Your task to perform on an android device: Open Wikipedia Image 0: 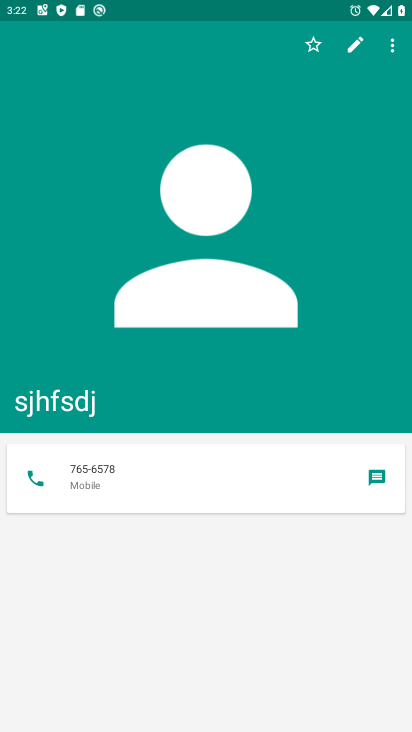
Step 0: press home button
Your task to perform on an android device: Open Wikipedia Image 1: 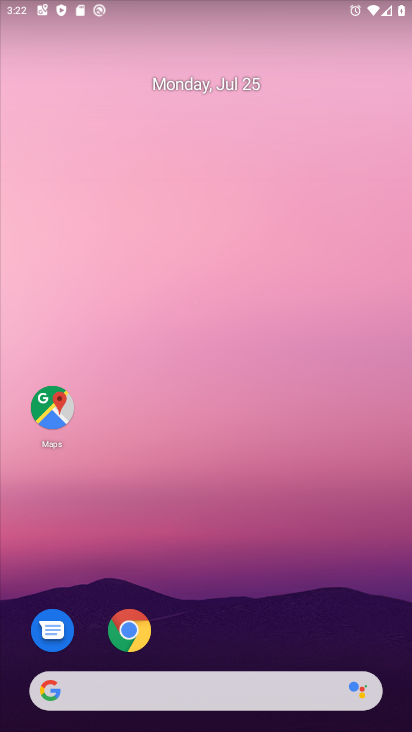
Step 1: click (145, 630)
Your task to perform on an android device: Open Wikipedia Image 2: 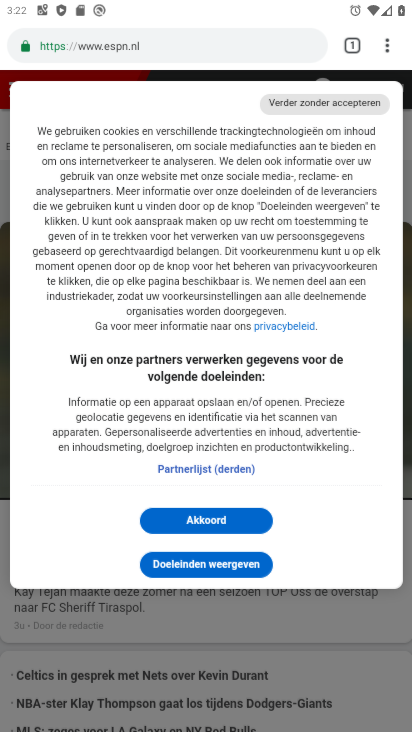
Step 2: click (149, 45)
Your task to perform on an android device: Open Wikipedia Image 3: 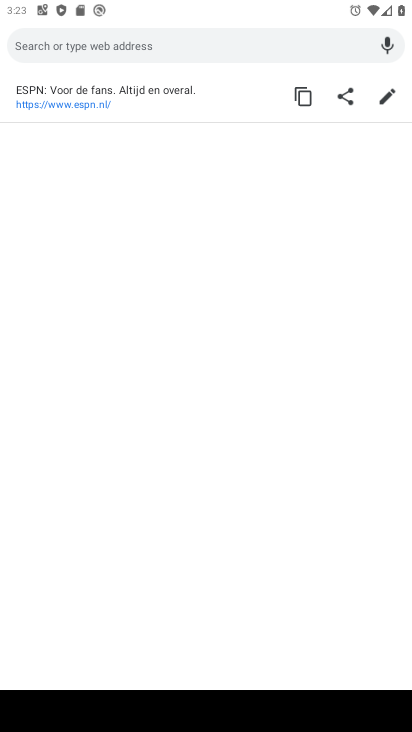
Step 3: type "wikipedia"
Your task to perform on an android device: Open Wikipedia Image 4: 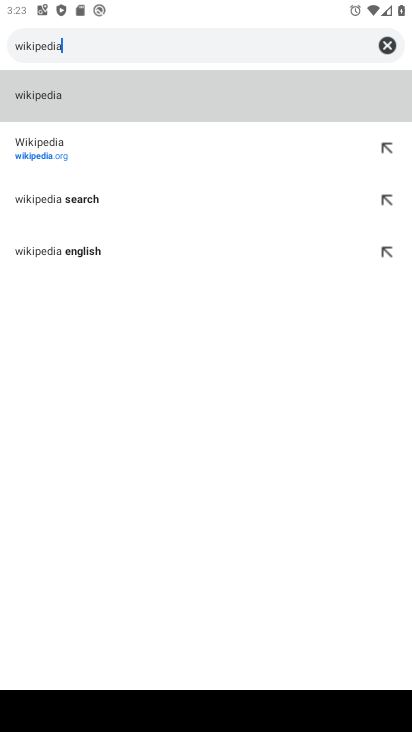
Step 4: click (36, 145)
Your task to perform on an android device: Open Wikipedia Image 5: 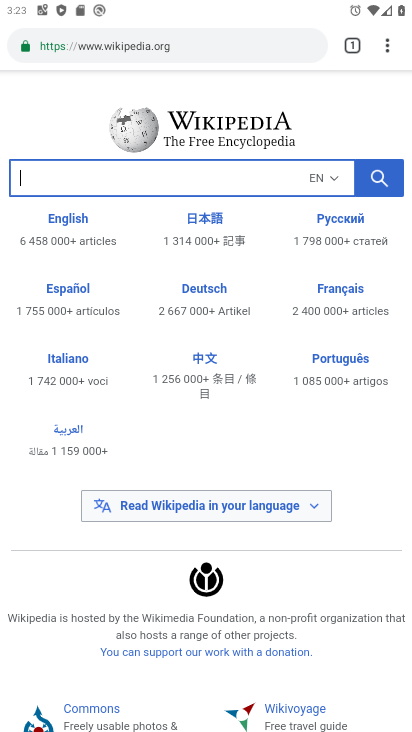
Step 5: task complete